Your task to perform on an android device: check out phone information Image 0: 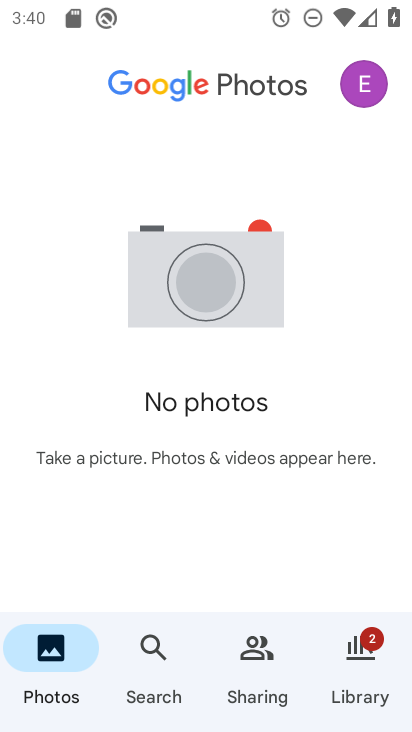
Step 0: press home button
Your task to perform on an android device: check out phone information Image 1: 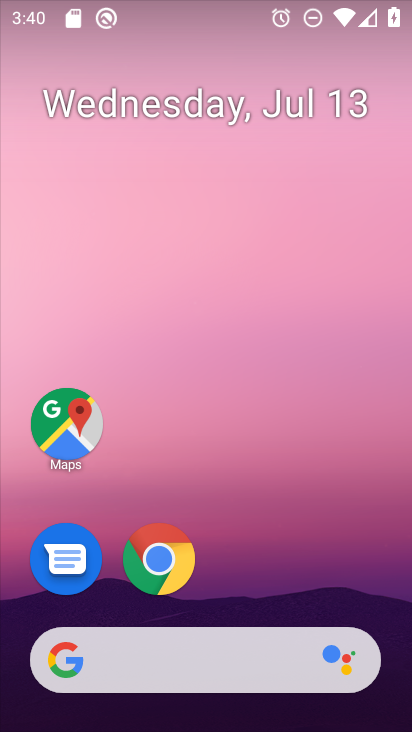
Step 1: drag from (320, 597) to (342, 140)
Your task to perform on an android device: check out phone information Image 2: 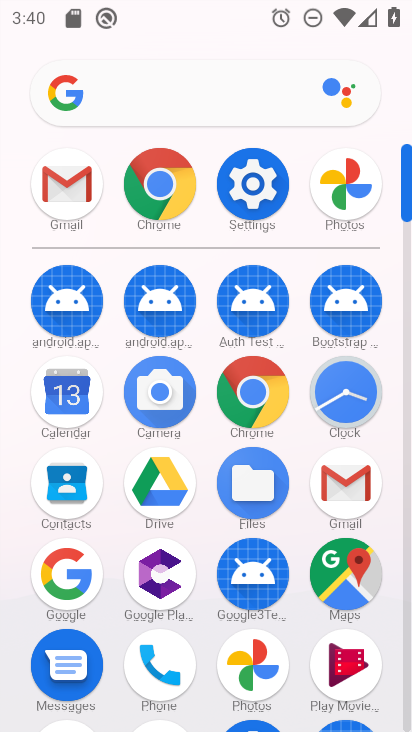
Step 2: drag from (380, 519) to (385, 273)
Your task to perform on an android device: check out phone information Image 3: 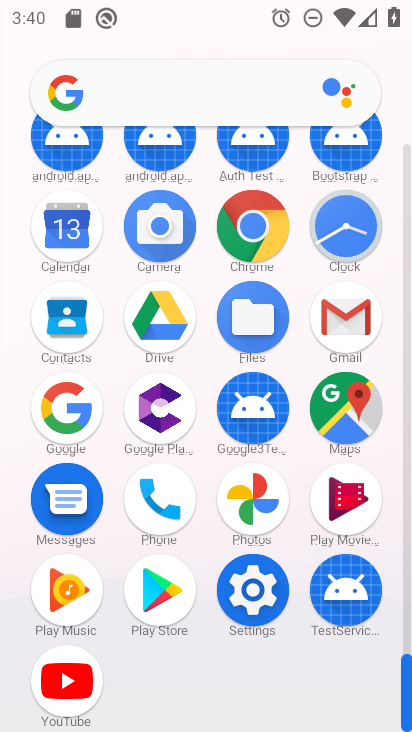
Step 3: click (179, 501)
Your task to perform on an android device: check out phone information Image 4: 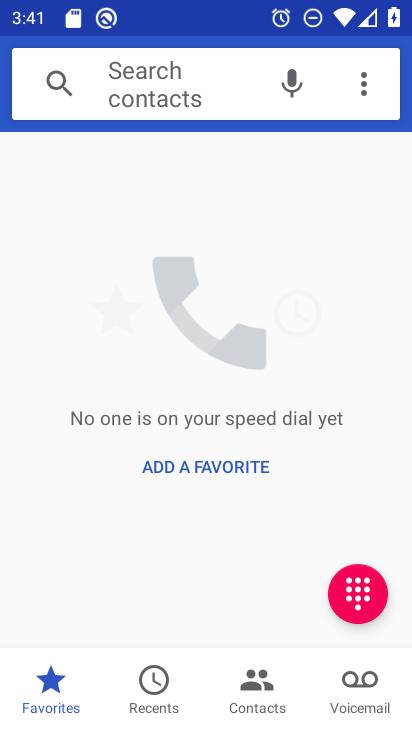
Step 4: task complete